Your task to perform on an android device: Open the calendar and show me this week's events Image 0: 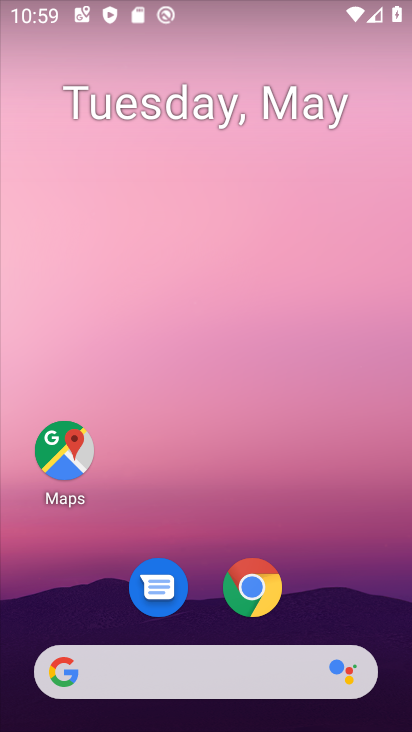
Step 0: drag from (331, 568) to (270, 55)
Your task to perform on an android device: Open the calendar and show me this week's events Image 1: 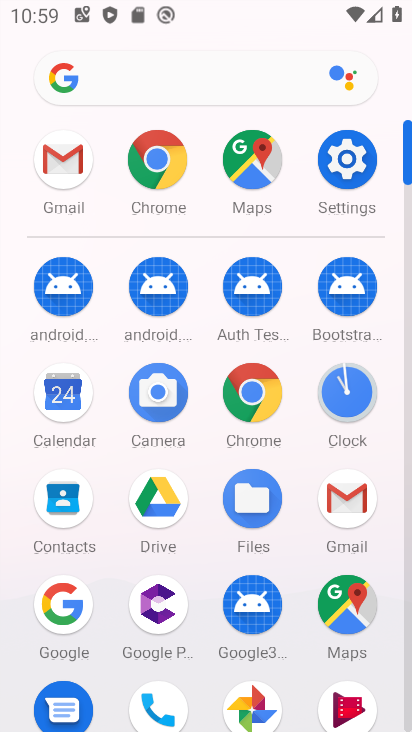
Step 1: drag from (5, 577) to (10, 265)
Your task to perform on an android device: Open the calendar and show me this week's events Image 2: 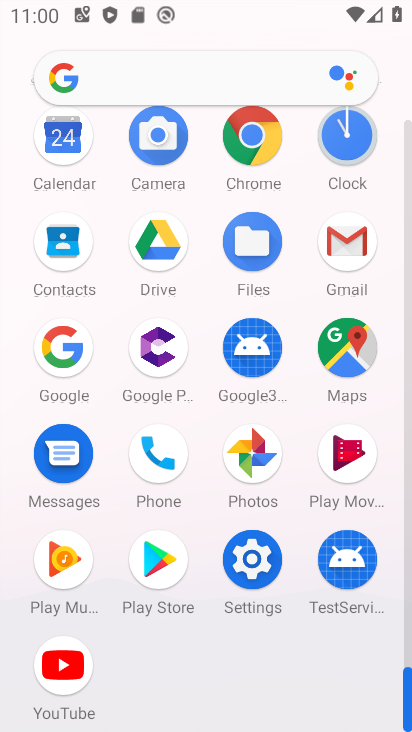
Step 2: click (64, 133)
Your task to perform on an android device: Open the calendar and show me this week's events Image 3: 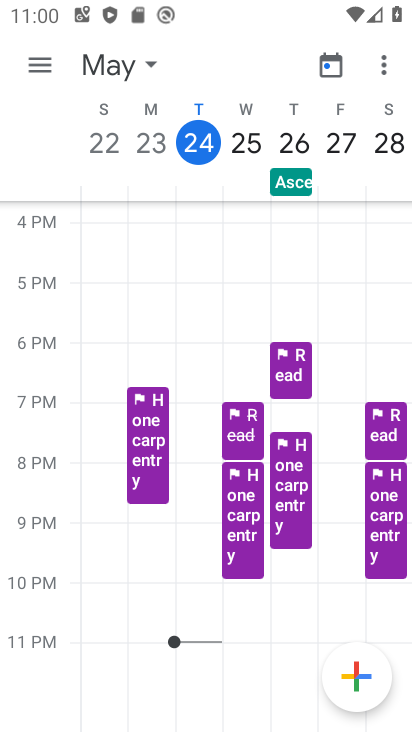
Step 3: click (322, 64)
Your task to perform on an android device: Open the calendar and show me this week's events Image 4: 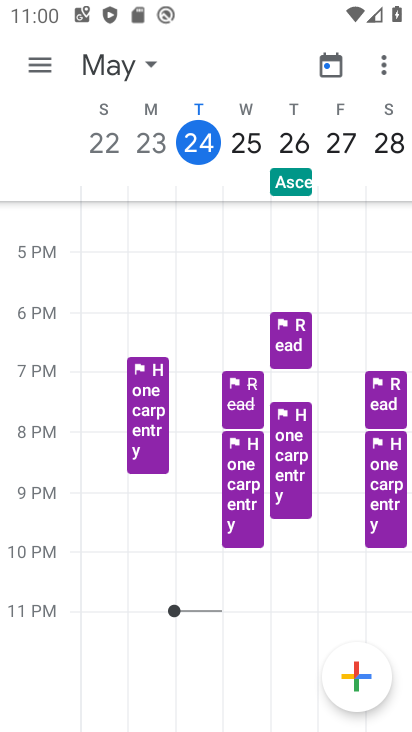
Step 4: click (34, 65)
Your task to perform on an android device: Open the calendar and show me this week's events Image 5: 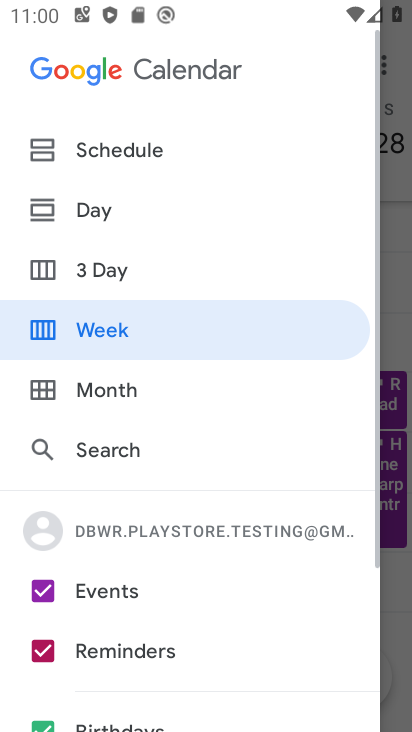
Step 5: click (128, 323)
Your task to perform on an android device: Open the calendar and show me this week's events Image 6: 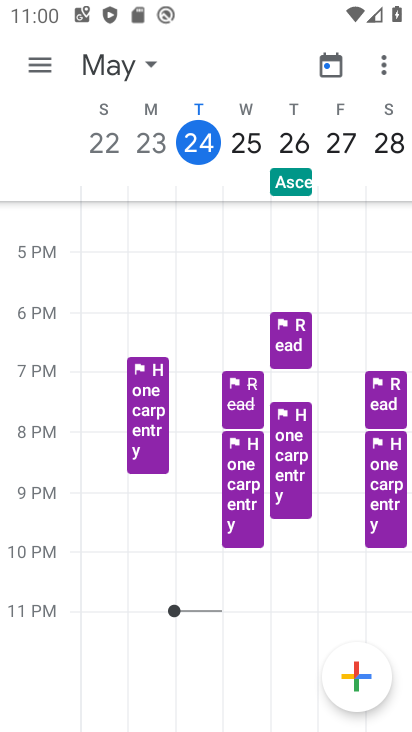
Step 6: task complete